Your task to perform on an android device: What's the weather going to be tomorrow? Image 0: 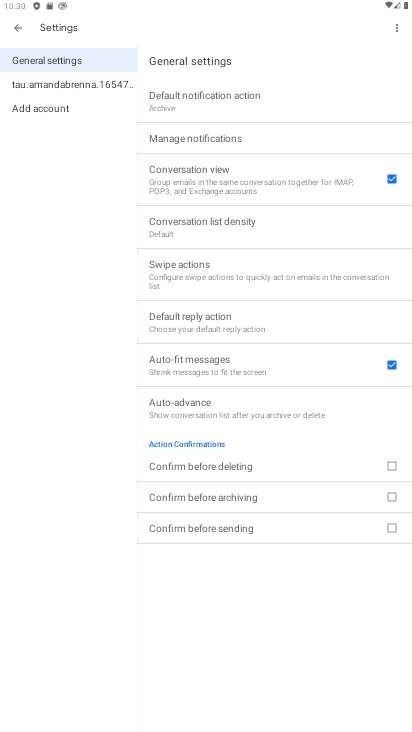
Step 0: press home button
Your task to perform on an android device: What's the weather going to be tomorrow? Image 1: 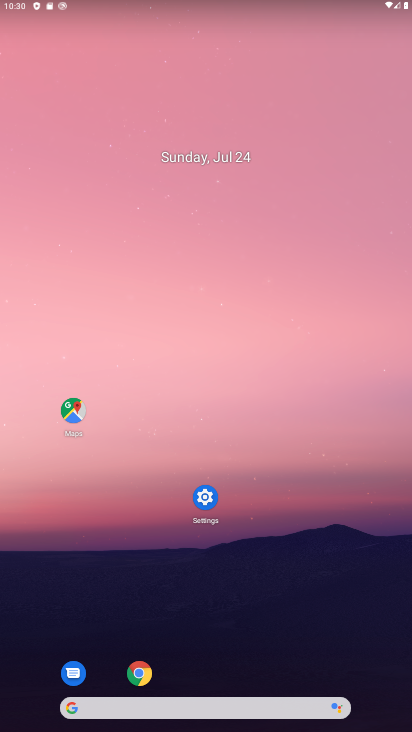
Step 1: click (266, 704)
Your task to perform on an android device: What's the weather going to be tomorrow? Image 2: 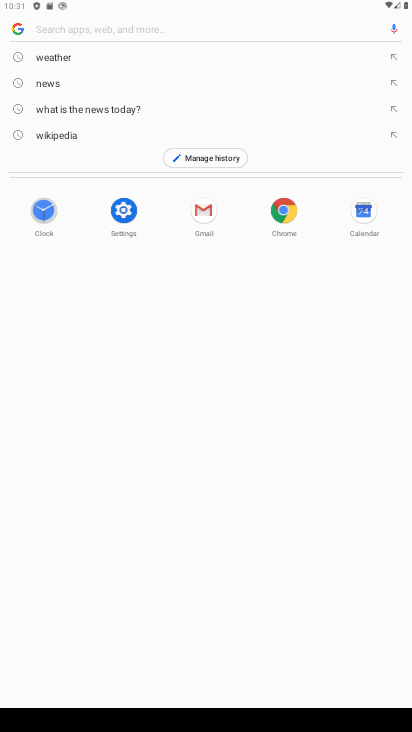
Step 2: type "What's the weather going to be tomorrow?"
Your task to perform on an android device: What's the weather going to be tomorrow? Image 3: 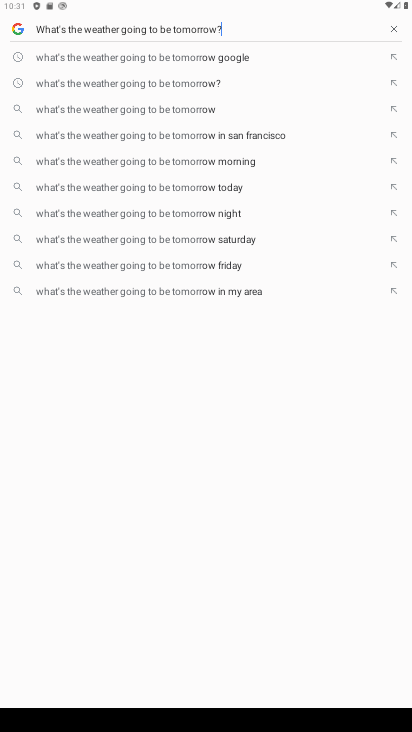
Step 3: press enter
Your task to perform on an android device: What's the weather going to be tomorrow? Image 4: 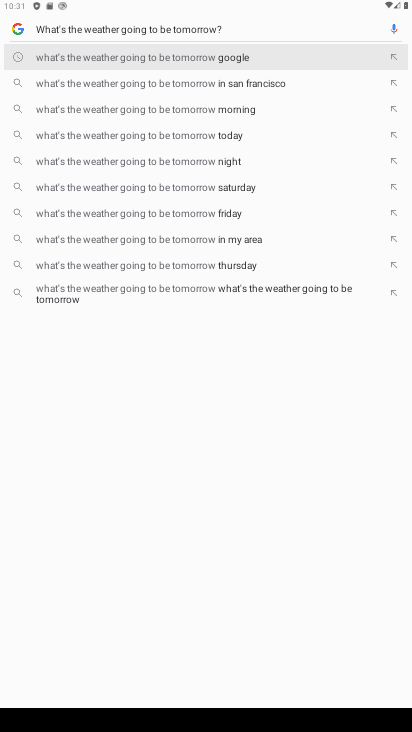
Step 4: press enter
Your task to perform on an android device: What's the weather going to be tomorrow? Image 5: 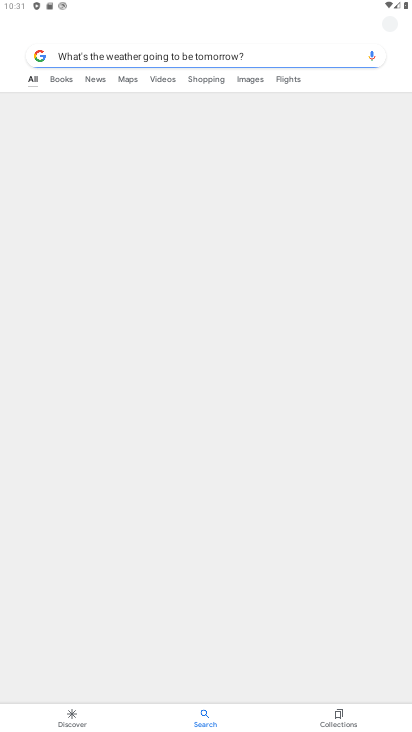
Step 5: task complete